Your task to perform on an android device: Open Wikipedia Image 0: 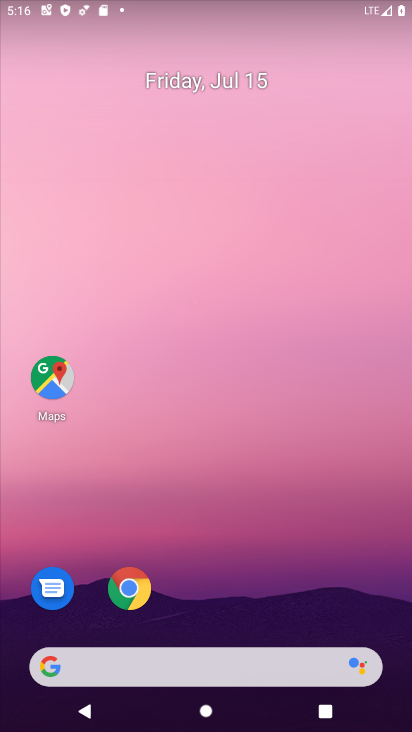
Step 0: drag from (151, 680) to (271, 1)
Your task to perform on an android device: Open Wikipedia Image 1: 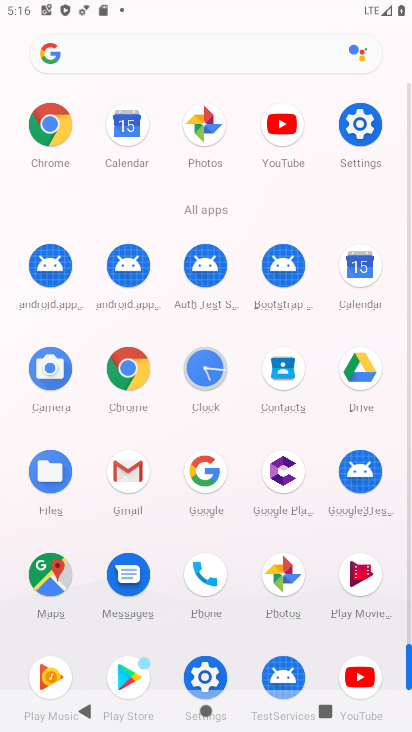
Step 1: click (134, 375)
Your task to perform on an android device: Open Wikipedia Image 2: 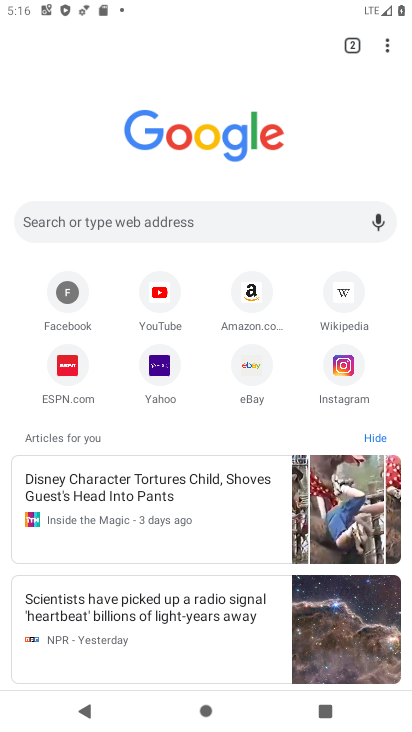
Step 2: click (354, 295)
Your task to perform on an android device: Open Wikipedia Image 3: 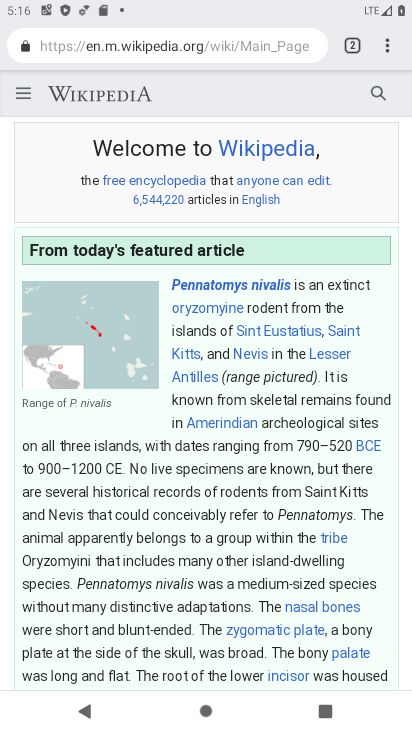
Step 3: task complete